Your task to perform on an android device: see sites visited before in the chrome app Image 0: 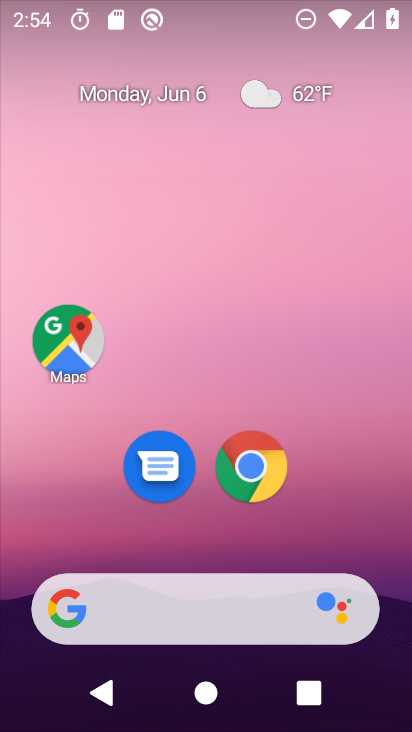
Step 0: drag from (207, 556) to (264, 144)
Your task to perform on an android device: see sites visited before in the chrome app Image 1: 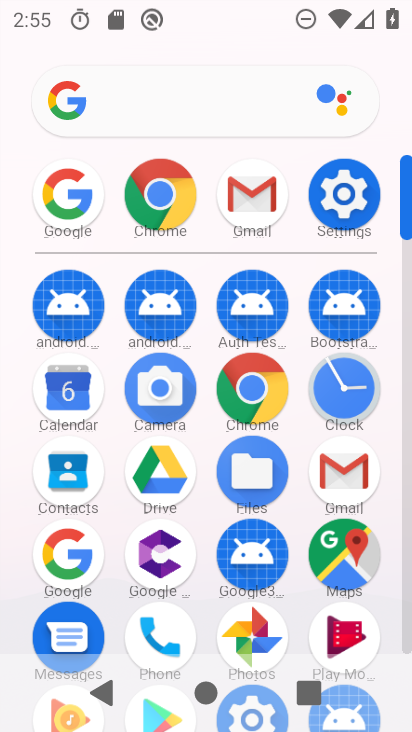
Step 1: click (256, 389)
Your task to perform on an android device: see sites visited before in the chrome app Image 2: 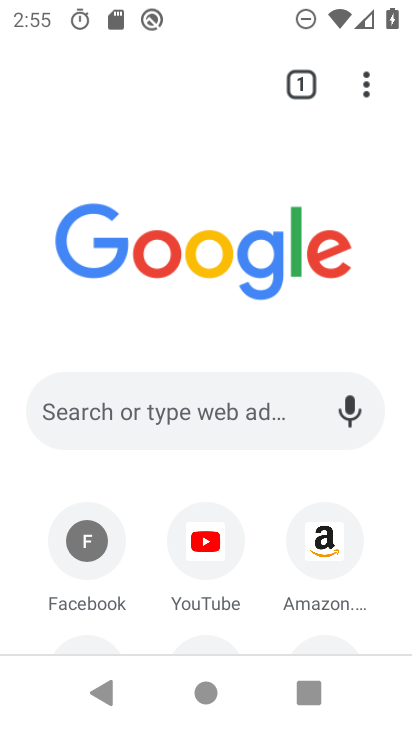
Step 2: click (358, 90)
Your task to perform on an android device: see sites visited before in the chrome app Image 3: 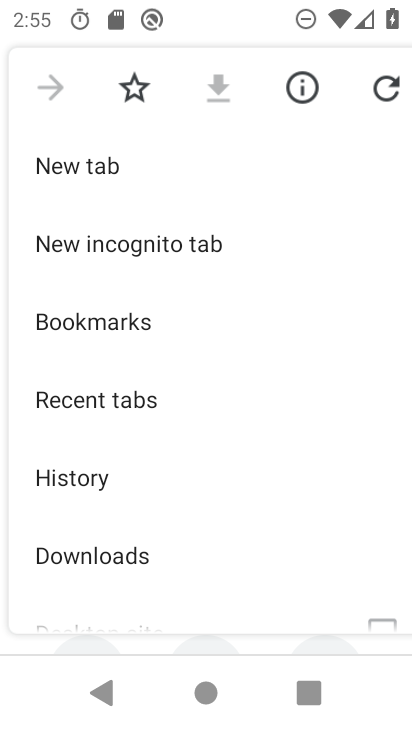
Step 3: drag from (107, 508) to (124, 314)
Your task to perform on an android device: see sites visited before in the chrome app Image 4: 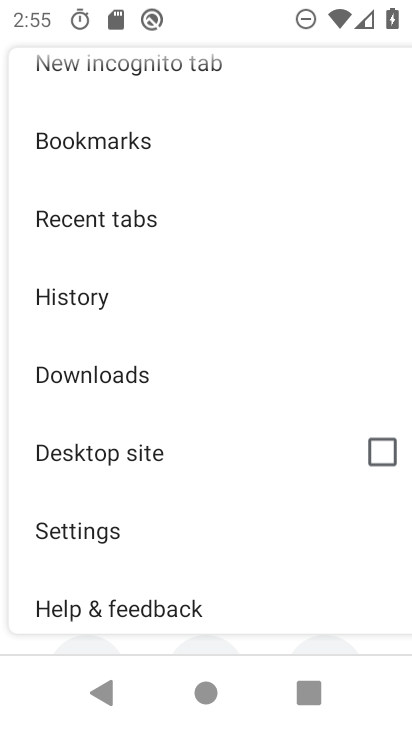
Step 4: click (119, 293)
Your task to perform on an android device: see sites visited before in the chrome app Image 5: 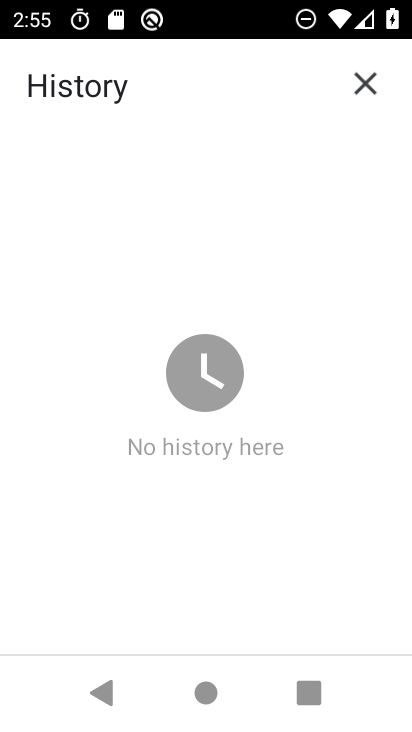
Step 5: task complete